Your task to perform on an android device: Open calendar and show me the first week of next month Image 0: 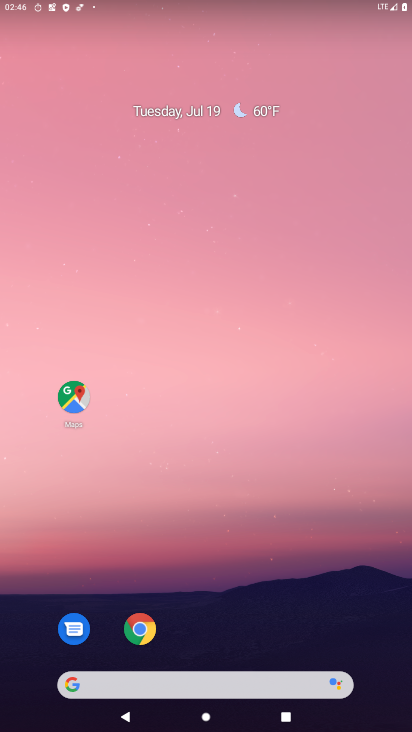
Step 0: drag from (219, 620) to (269, 161)
Your task to perform on an android device: Open calendar and show me the first week of next month Image 1: 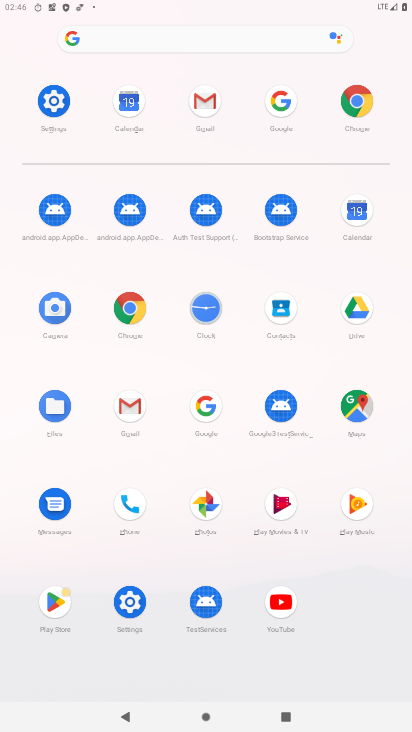
Step 1: click (351, 227)
Your task to perform on an android device: Open calendar and show me the first week of next month Image 2: 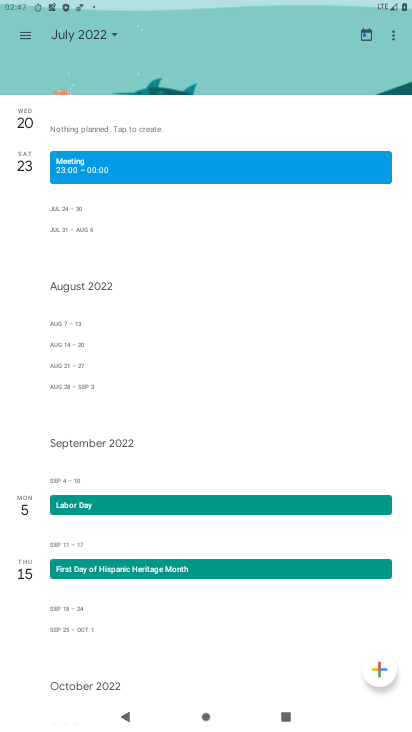
Step 2: click (115, 35)
Your task to perform on an android device: Open calendar and show me the first week of next month Image 3: 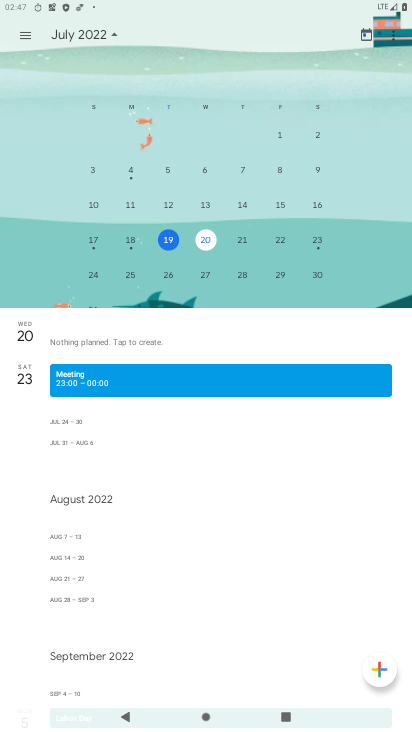
Step 3: task complete